Your task to perform on an android device: turn off location Image 0: 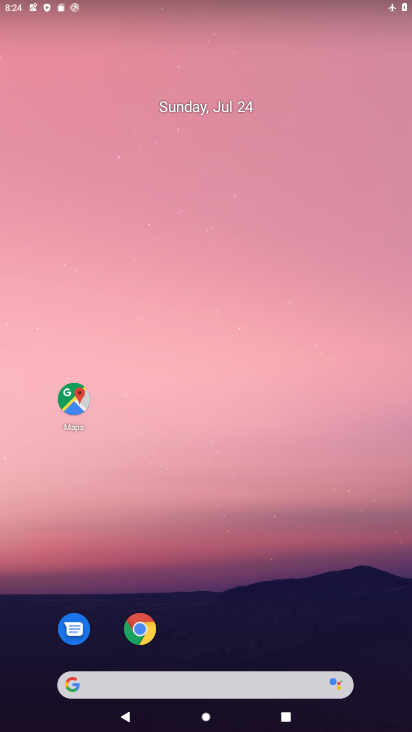
Step 0: drag from (240, 678) to (299, 198)
Your task to perform on an android device: turn off location Image 1: 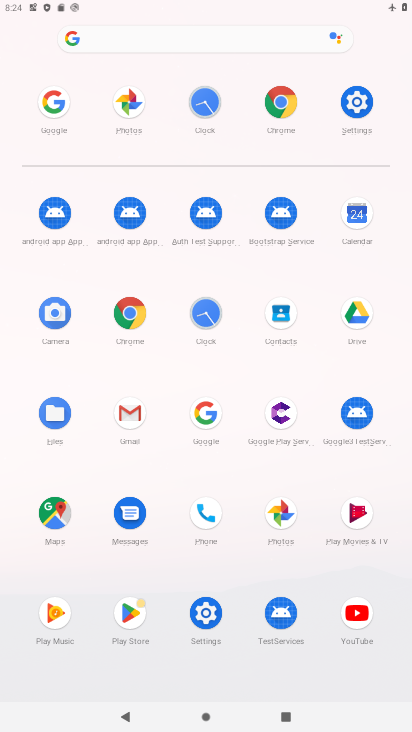
Step 1: click (204, 623)
Your task to perform on an android device: turn off location Image 2: 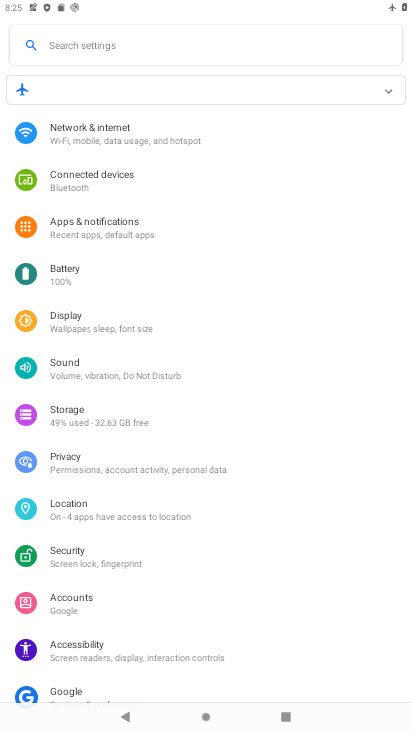
Step 2: click (150, 525)
Your task to perform on an android device: turn off location Image 3: 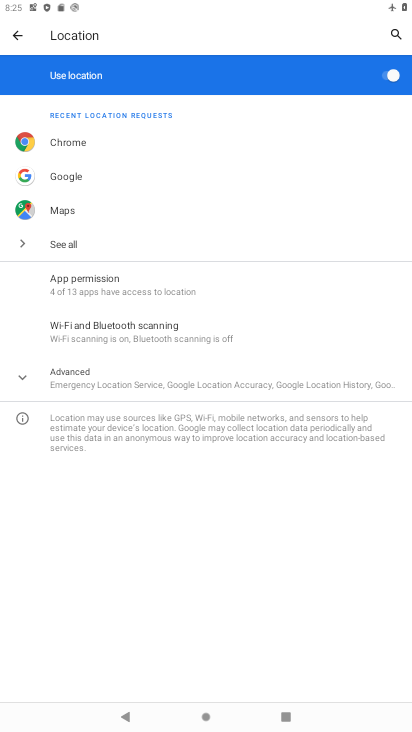
Step 3: click (369, 78)
Your task to perform on an android device: turn off location Image 4: 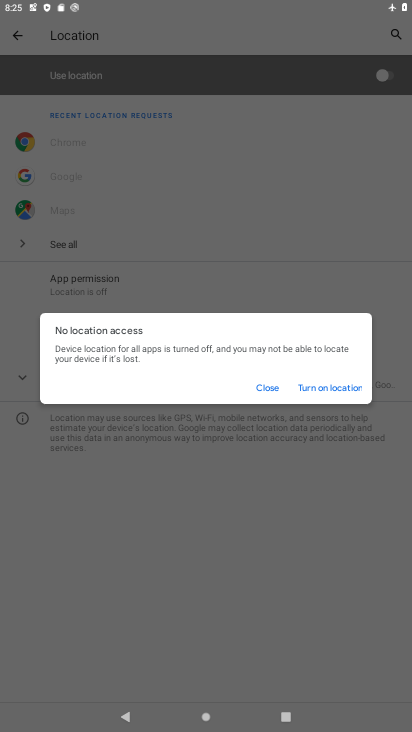
Step 4: drag from (319, 392) to (153, 562)
Your task to perform on an android device: turn off location Image 5: 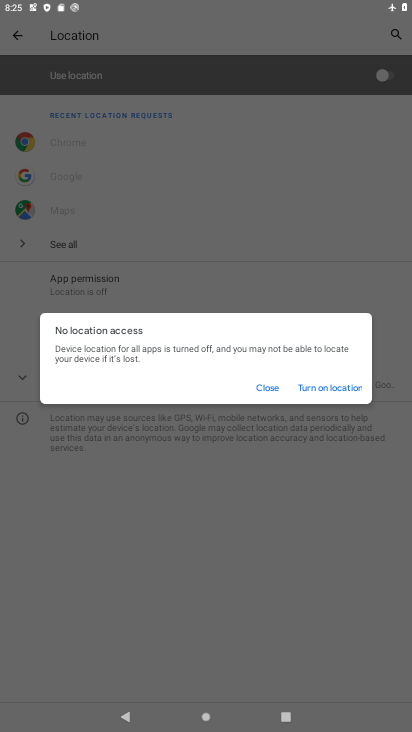
Step 5: click (271, 389)
Your task to perform on an android device: turn off location Image 6: 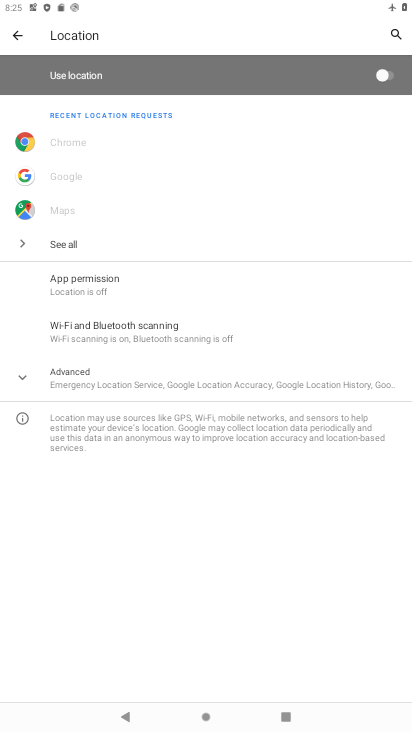
Step 6: task complete